Your task to perform on an android device: What time is it in San Francisco? Image 0: 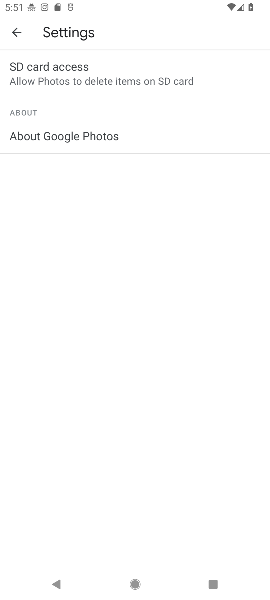
Step 0: press home button
Your task to perform on an android device: What time is it in San Francisco? Image 1: 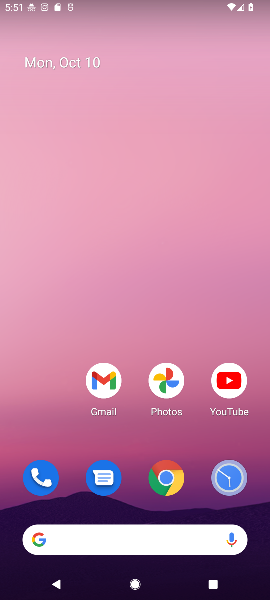
Step 1: click (174, 472)
Your task to perform on an android device: What time is it in San Francisco? Image 2: 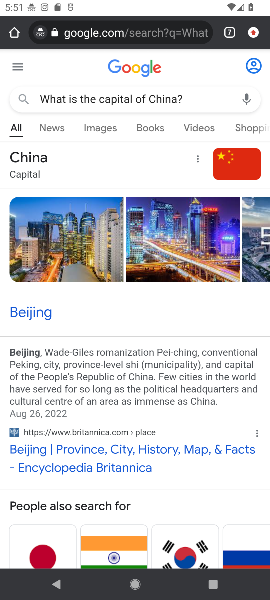
Step 2: click (135, 28)
Your task to perform on an android device: What time is it in San Francisco? Image 3: 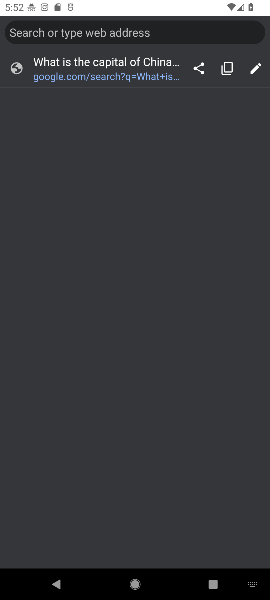
Step 3: type "time is it in San Francisco?"
Your task to perform on an android device: What time is it in San Francisco? Image 4: 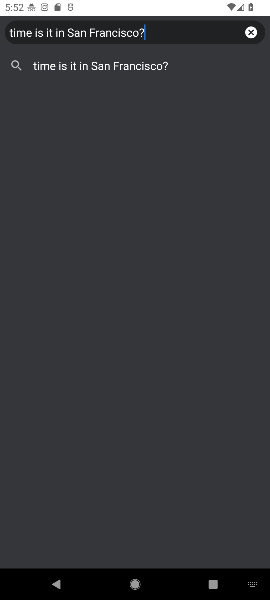
Step 4: click (112, 60)
Your task to perform on an android device: What time is it in San Francisco? Image 5: 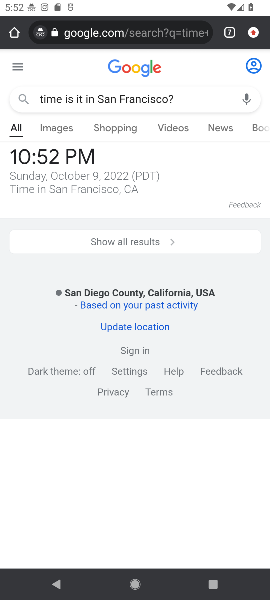
Step 5: task complete